Your task to perform on an android device: Check the weather Image 0: 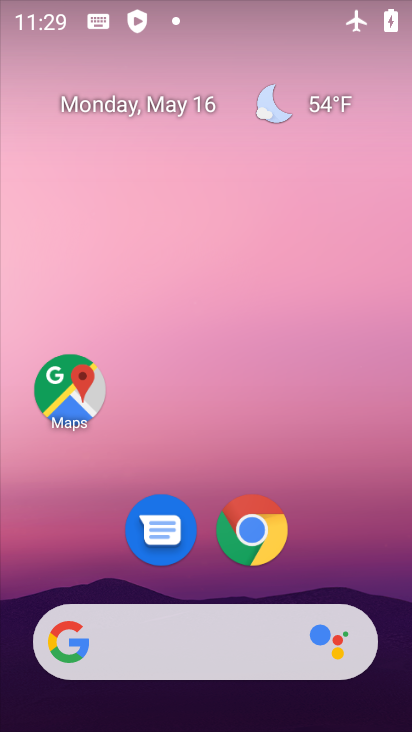
Step 0: click (245, 629)
Your task to perform on an android device: Check the weather Image 1: 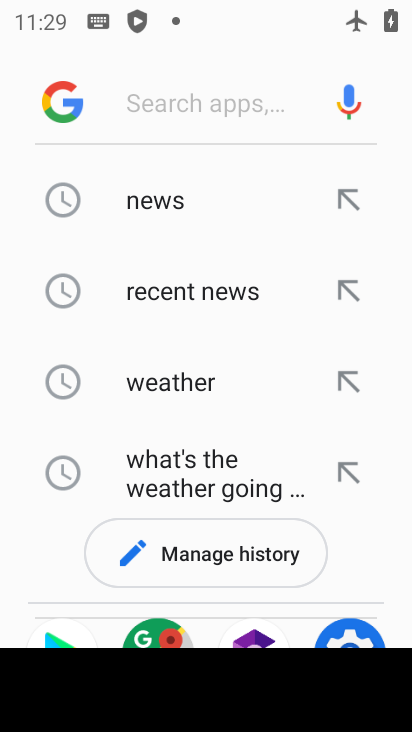
Step 1: click (197, 379)
Your task to perform on an android device: Check the weather Image 2: 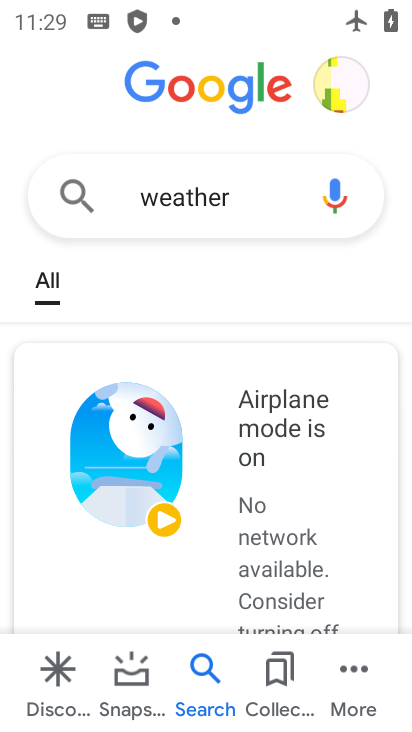
Step 2: task complete